Your task to perform on an android device: turn on priority inbox in the gmail app Image 0: 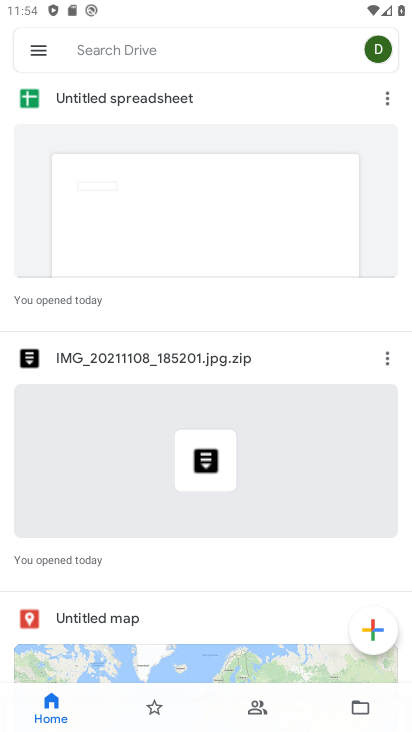
Step 0: press home button
Your task to perform on an android device: turn on priority inbox in the gmail app Image 1: 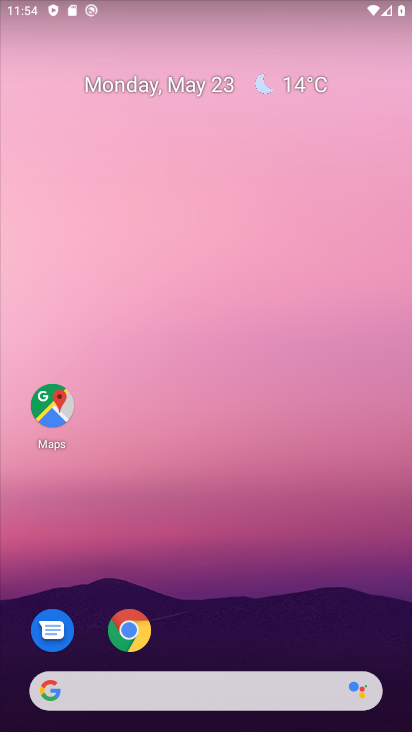
Step 1: drag from (320, 372) to (317, 91)
Your task to perform on an android device: turn on priority inbox in the gmail app Image 2: 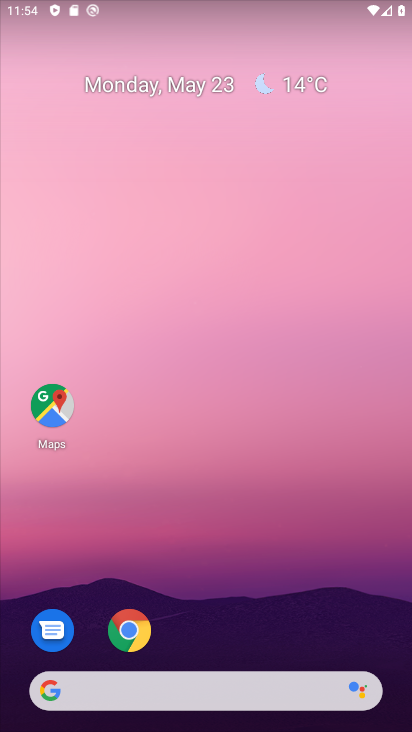
Step 2: drag from (295, 610) to (323, 167)
Your task to perform on an android device: turn on priority inbox in the gmail app Image 3: 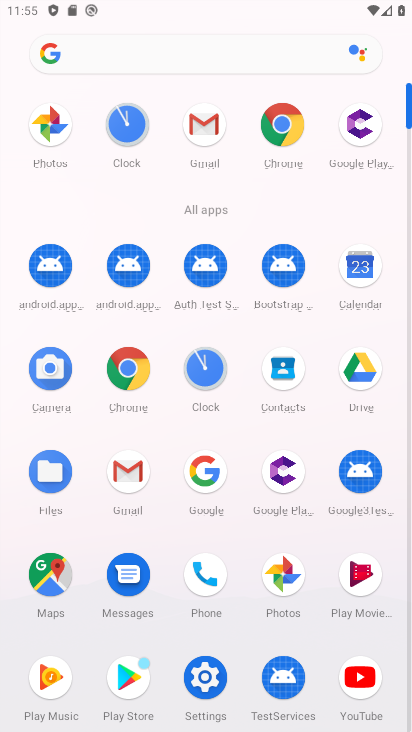
Step 3: click (138, 470)
Your task to perform on an android device: turn on priority inbox in the gmail app Image 4: 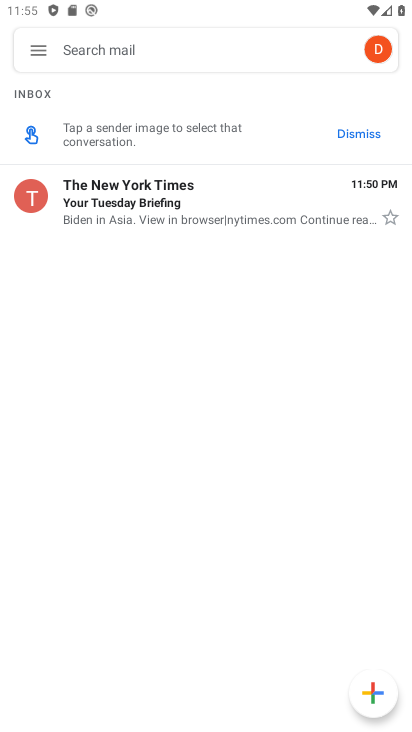
Step 4: click (46, 51)
Your task to perform on an android device: turn on priority inbox in the gmail app Image 5: 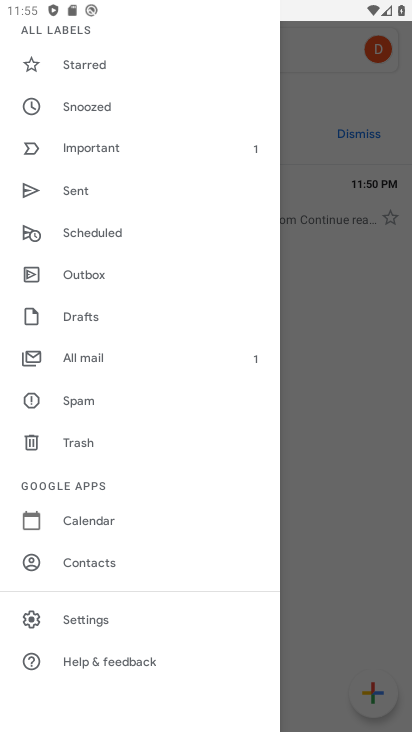
Step 5: click (122, 620)
Your task to perform on an android device: turn on priority inbox in the gmail app Image 6: 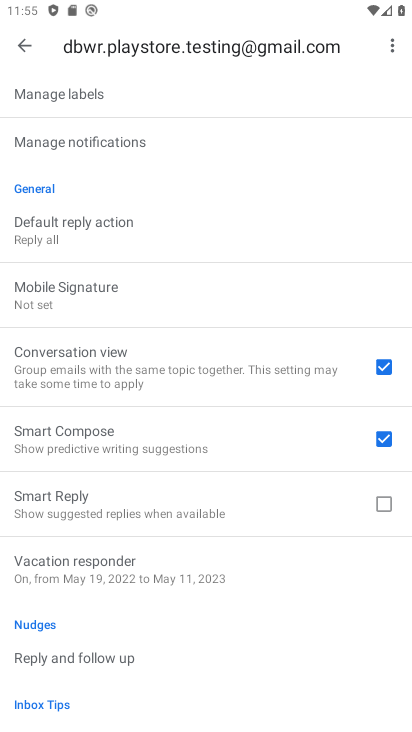
Step 6: drag from (213, 197) to (183, 569)
Your task to perform on an android device: turn on priority inbox in the gmail app Image 7: 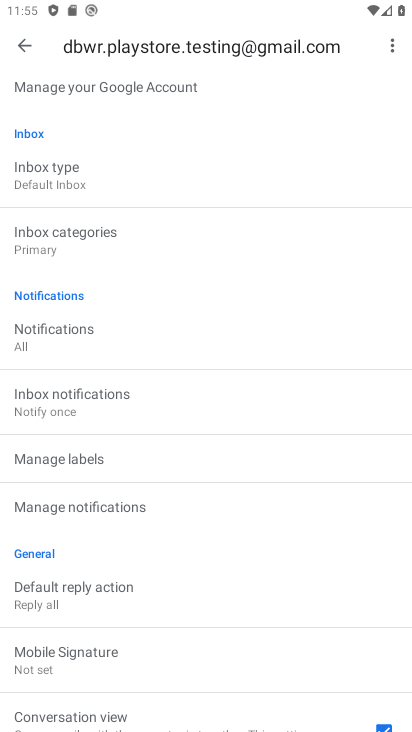
Step 7: drag from (130, 210) to (148, 411)
Your task to perform on an android device: turn on priority inbox in the gmail app Image 8: 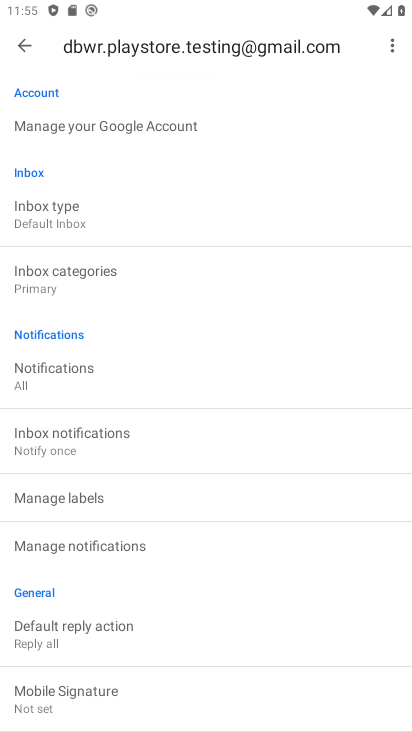
Step 8: click (84, 217)
Your task to perform on an android device: turn on priority inbox in the gmail app Image 9: 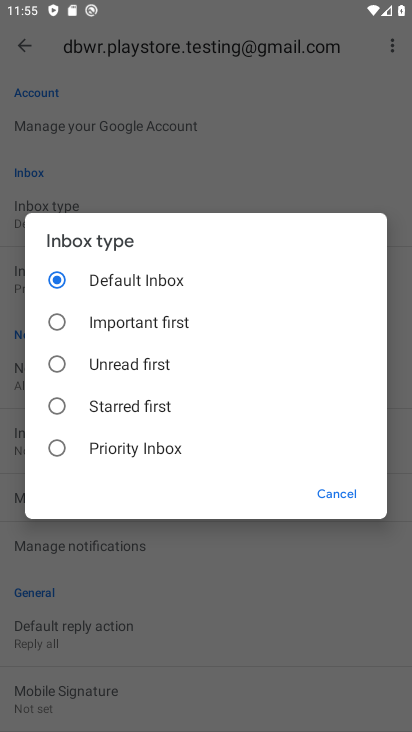
Step 9: click (114, 451)
Your task to perform on an android device: turn on priority inbox in the gmail app Image 10: 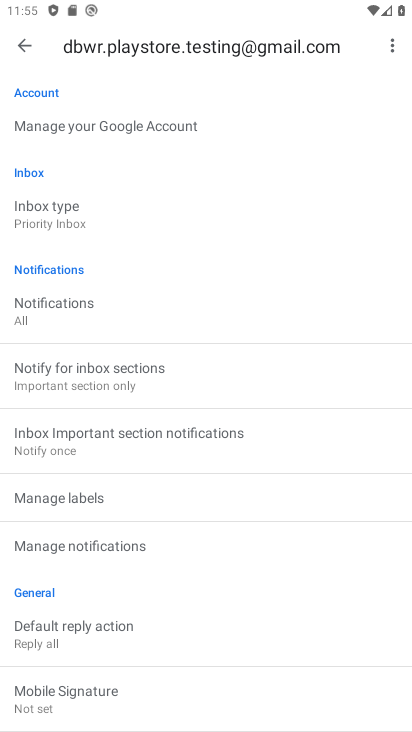
Step 10: task complete